Your task to perform on an android device: add a contact Image 0: 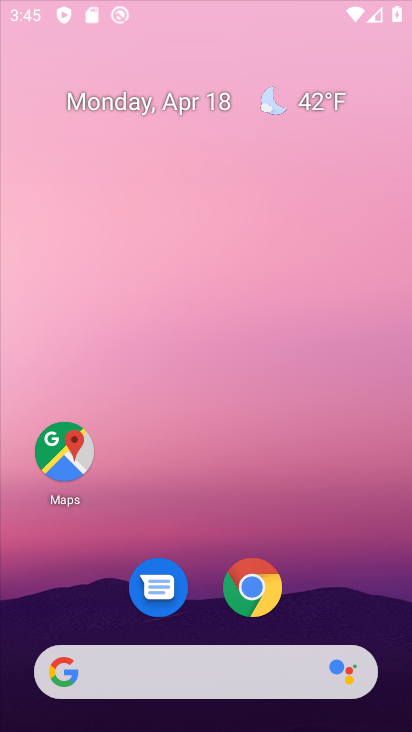
Step 0: click (211, 94)
Your task to perform on an android device: add a contact Image 1: 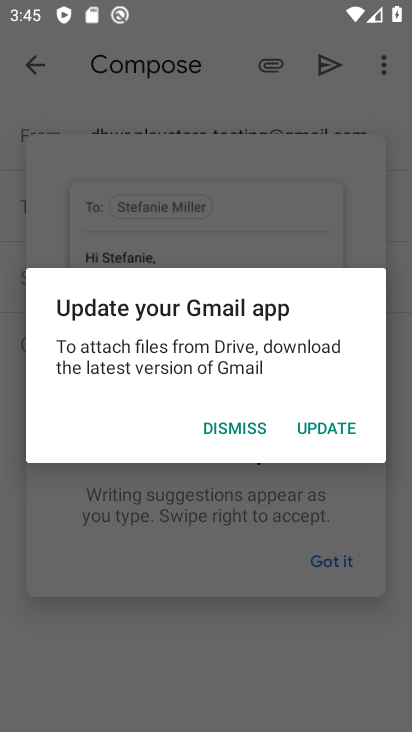
Step 1: press home button
Your task to perform on an android device: add a contact Image 2: 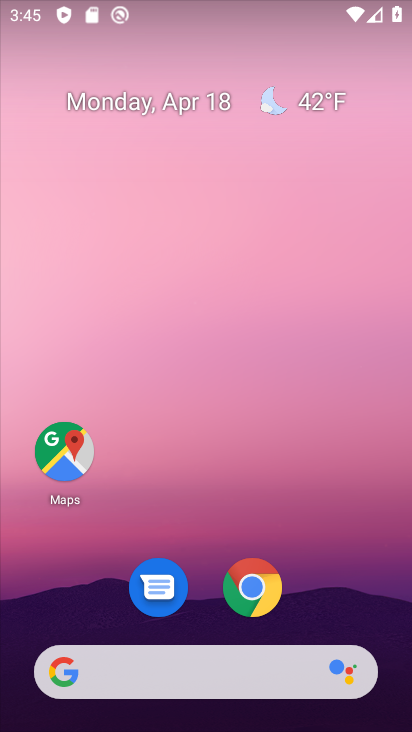
Step 2: drag from (212, 560) to (211, 131)
Your task to perform on an android device: add a contact Image 3: 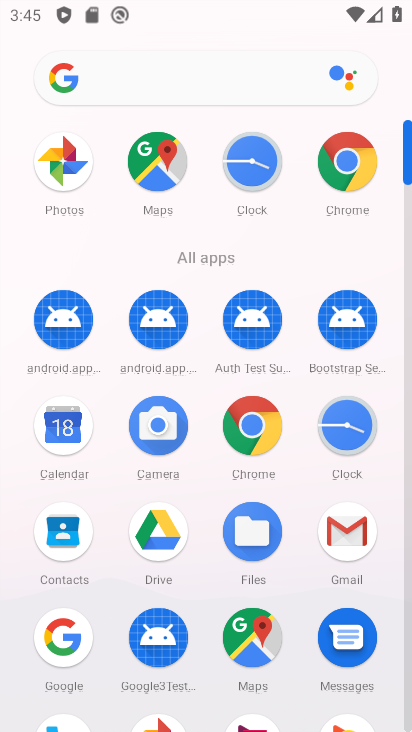
Step 3: click (66, 541)
Your task to perform on an android device: add a contact Image 4: 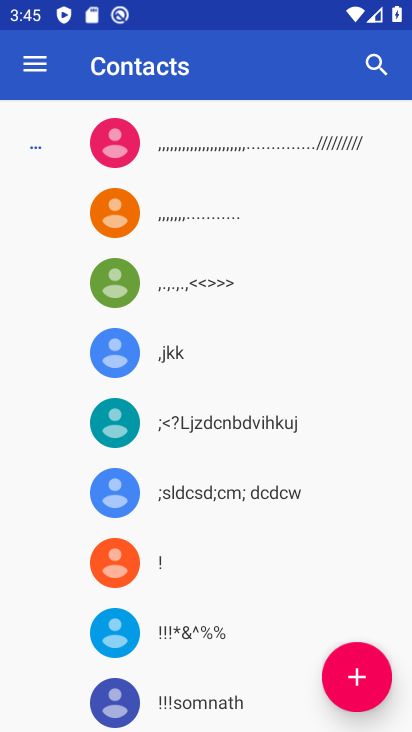
Step 4: click (357, 681)
Your task to perform on an android device: add a contact Image 5: 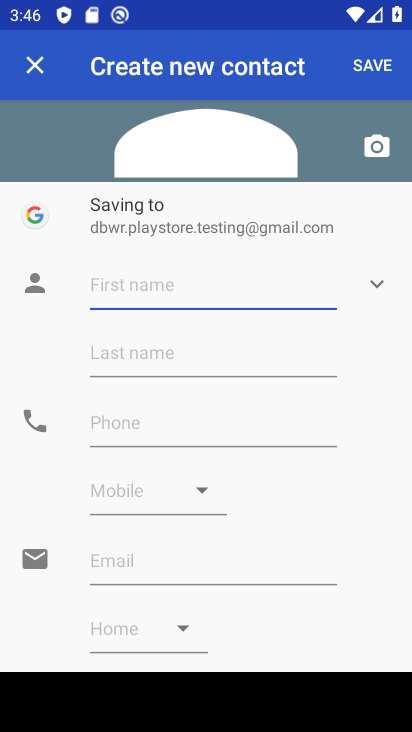
Step 5: click (158, 292)
Your task to perform on an android device: add a contact Image 6: 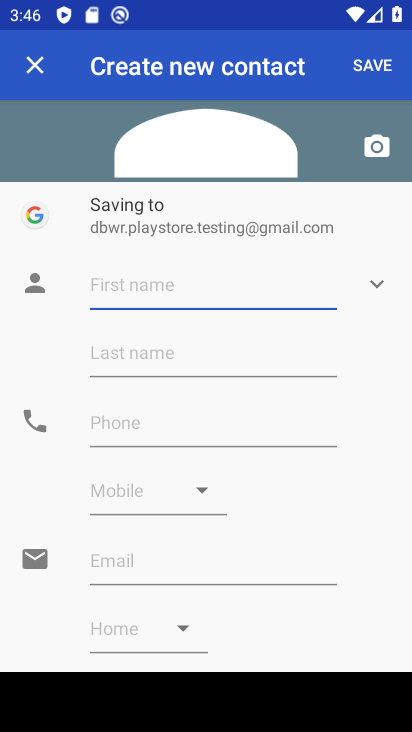
Step 6: type "fgsdf"
Your task to perform on an android device: add a contact Image 7: 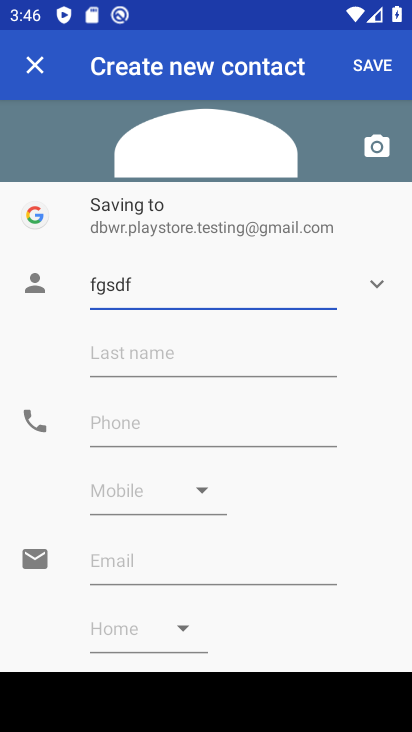
Step 7: click (205, 355)
Your task to perform on an android device: add a contact Image 8: 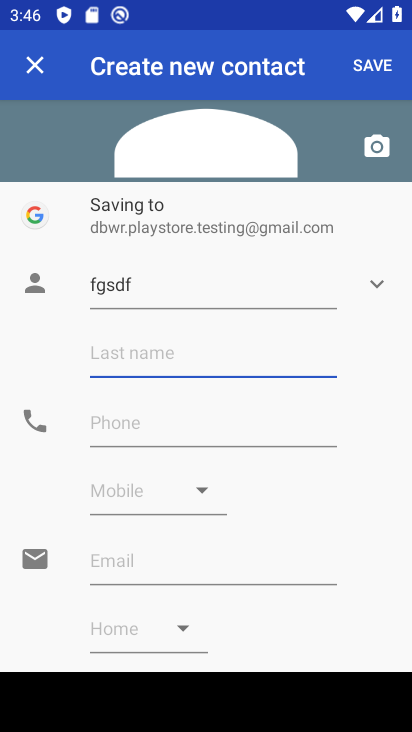
Step 8: type "gsdfg"
Your task to perform on an android device: add a contact Image 9: 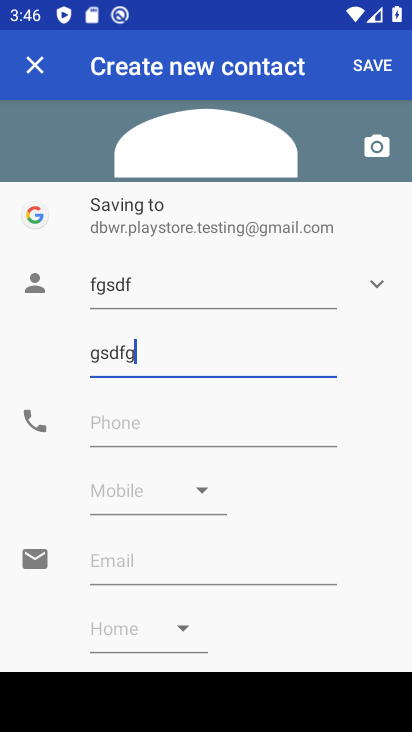
Step 9: click (229, 415)
Your task to perform on an android device: add a contact Image 10: 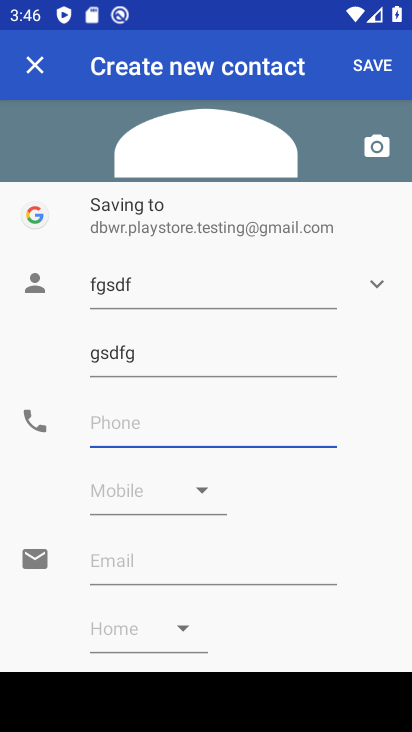
Step 10: type "543563456"
Your task to perform on an android device: add a contact Image 11: 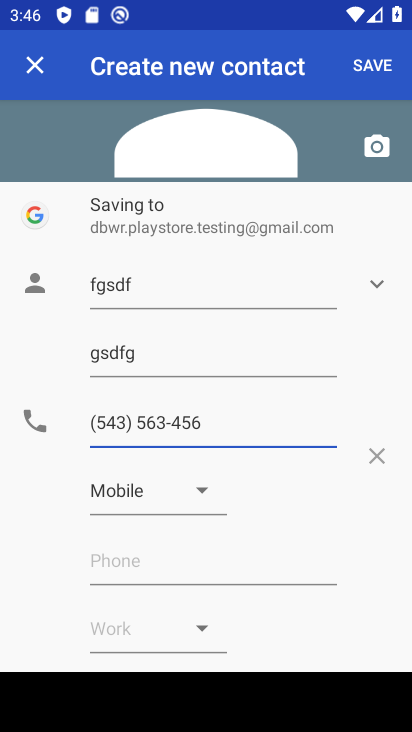
Step 11: click (370, 57)
Your task to perform on an android device: add a contact Image 12: 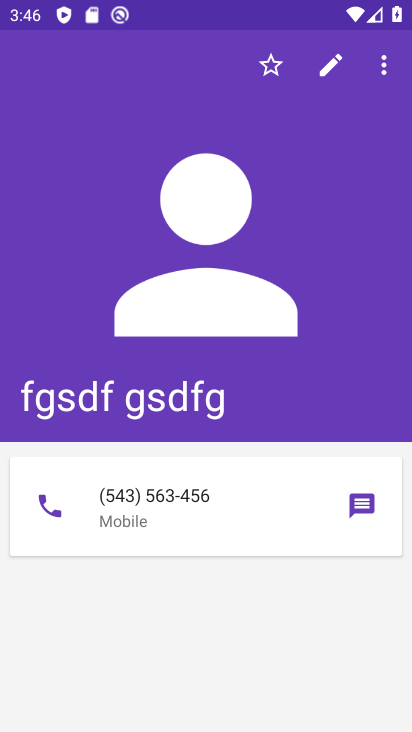
Step 12: task complete